Your task to perform on an android device: Open Reddit.com Image 0: 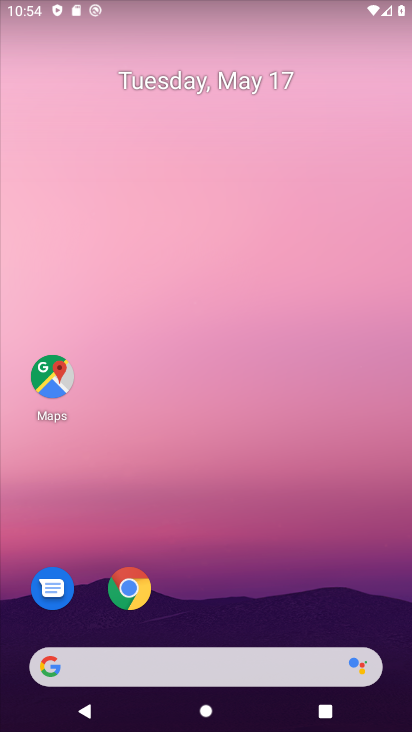
Step 0: drag from (201, 600) to (209, 74)
Your task to perform on an android device: Open Reddit.com Image 1: 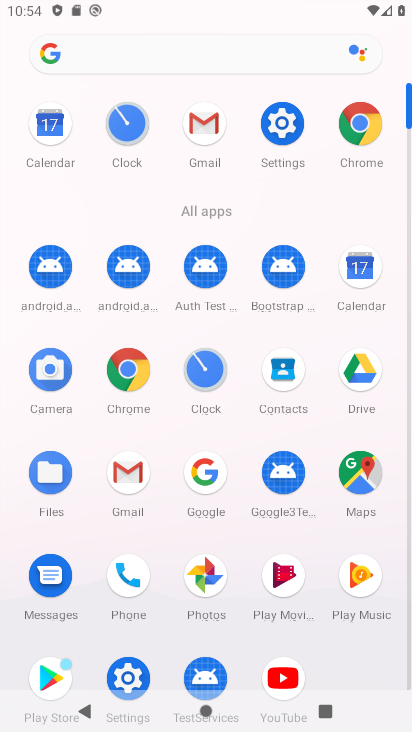
Step 1: click (199, 483)
Your task to perform on an android device: Open Reddit.com Image 2: 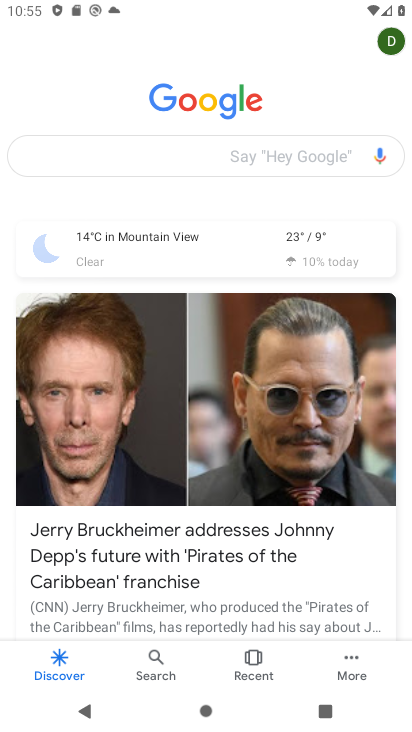
Step 2: click (215, 157)
Your task to perform on an android device: Open Reddit.com Image 3: 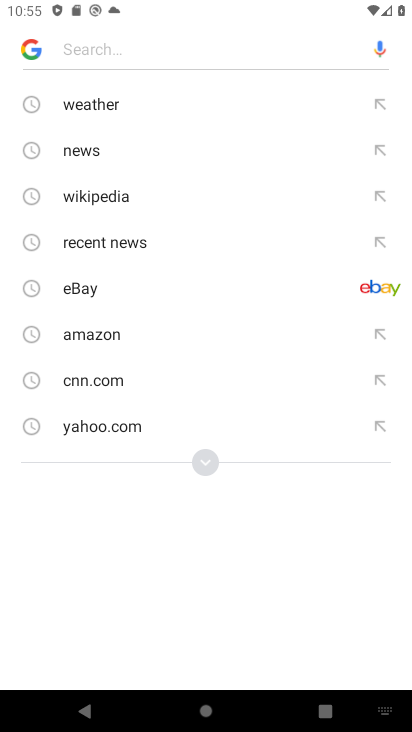
Step 3: type "reddit.com"
Your task to perform on an android device: Open Reddit.com Image 4: 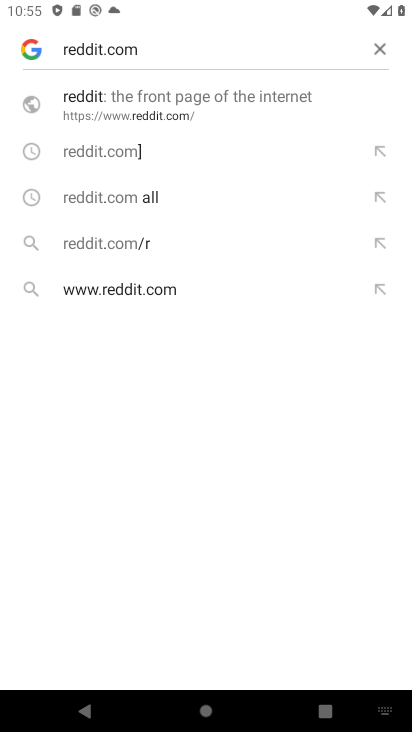
Step 4: click (153, 288)
Your task to perform on an android device: Open Reddit.com Image 5: 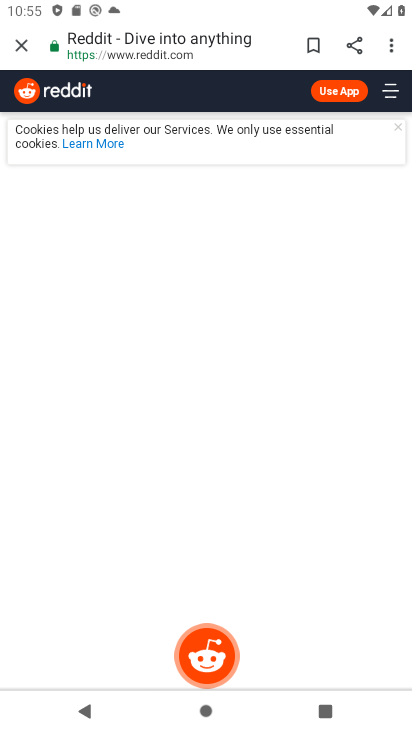
Step 5: task complete